Your task to perform on an android device: turn on improve location accuracy Image 0: 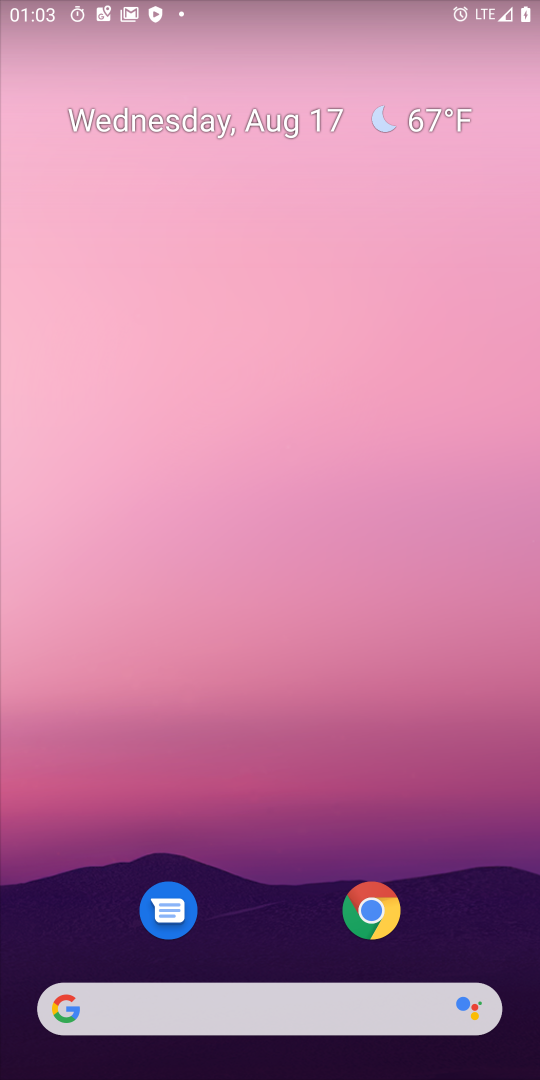
Step 0: drag from (272, 922) to (429, 59)
Your task to perform on an android device: turn on improve location accuracy Image 1: 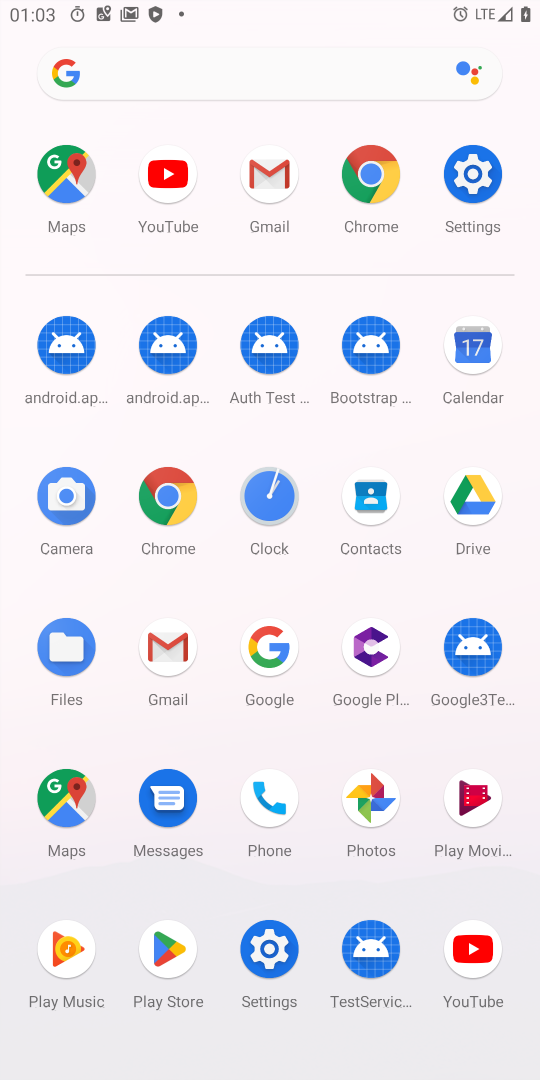
Step 1: click (266, 954)
Your task to perform on an android device: turn on improve location accuracy Image 2: 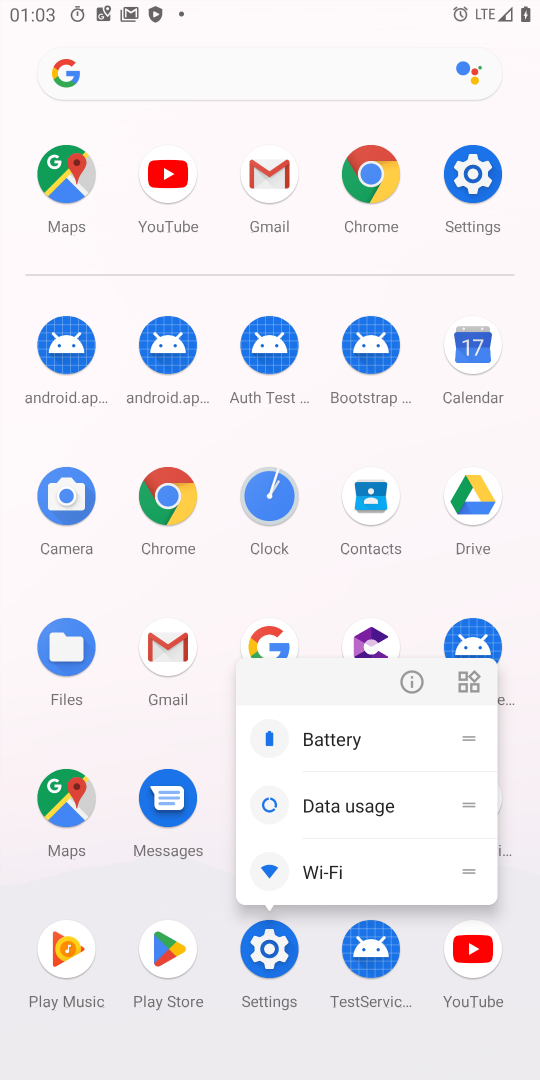
Step 2: click (266, 951)
Your task to perform on an android device: turn on improve location accuracy Image 3: 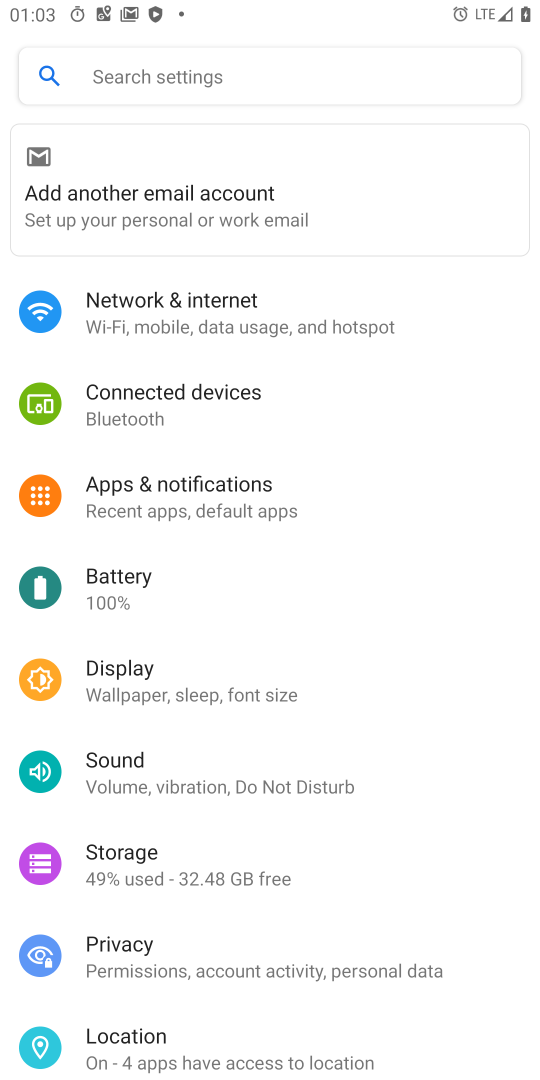
Step 3: click (161, 1045)
Your task to perform on an android device: turn on improve location accuracy Image 4: 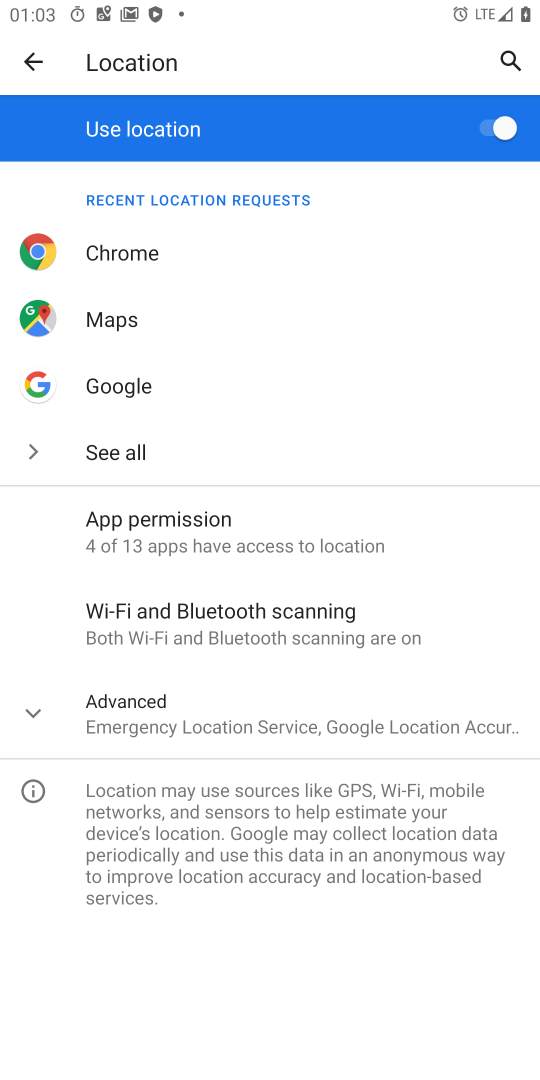
Step 4: click (176, 731)
Your task to perform on an android device: turn on improve location accuracy Image 5: 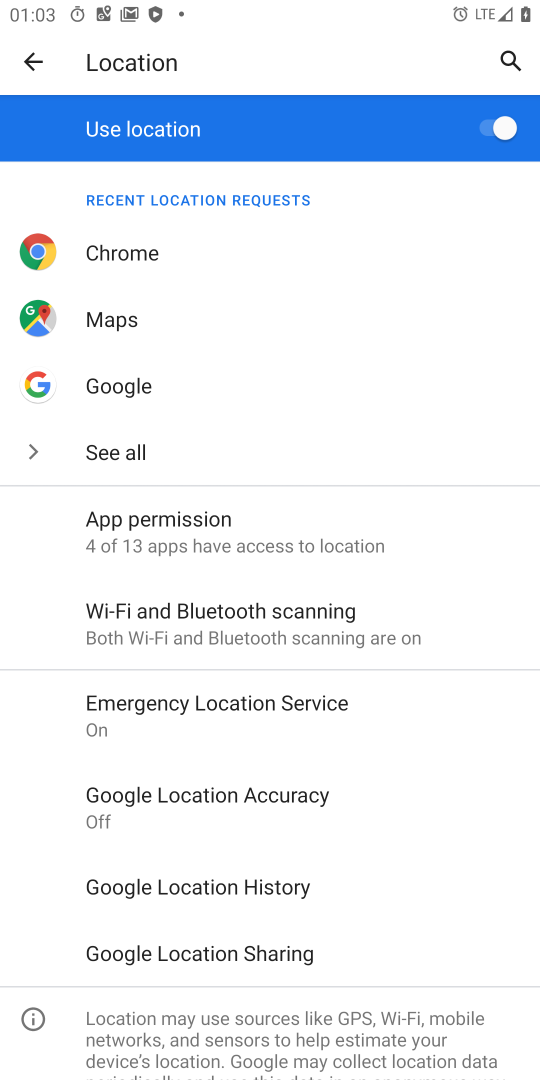
Step 5: click (283, 795)
Your task to perform on an android device: turn on improve location accuracy Image 6: 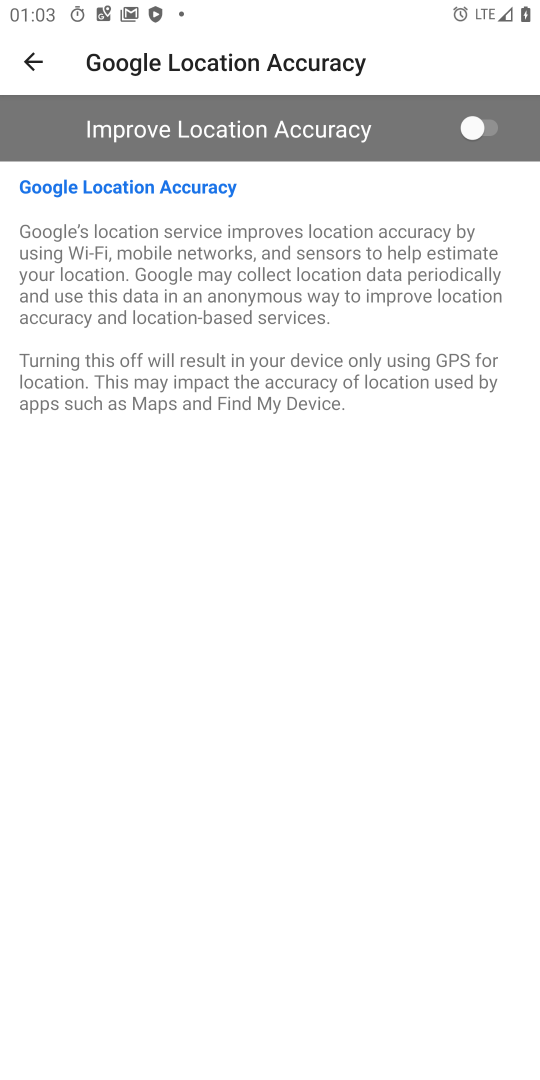
Step 6: click (502, 147)
Your task to perform on an android device: turn on improve location accuracy Image 7: 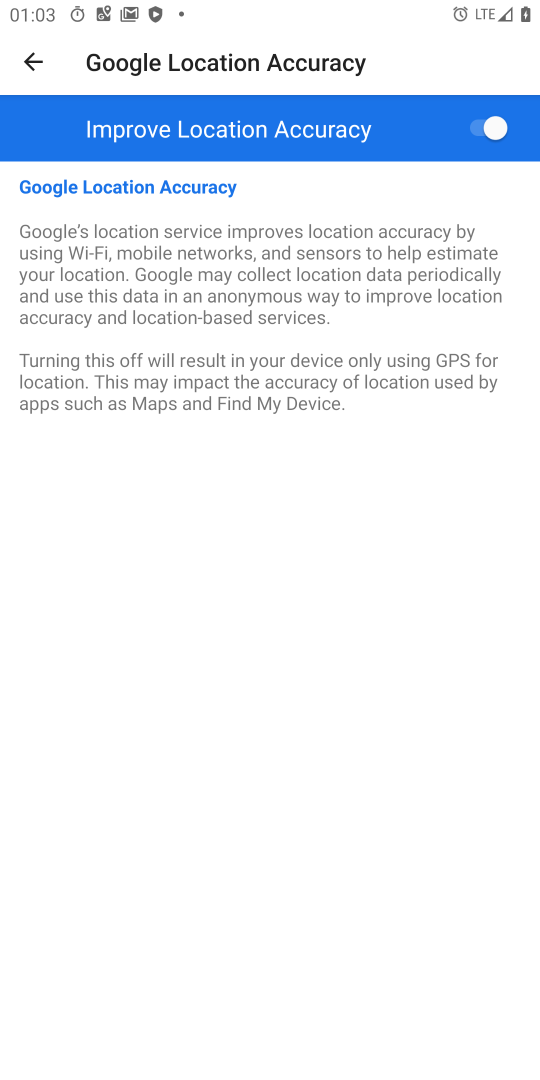
Step 7: task complete